Your task to perform on an android device: Open ESPN.com Image 0: 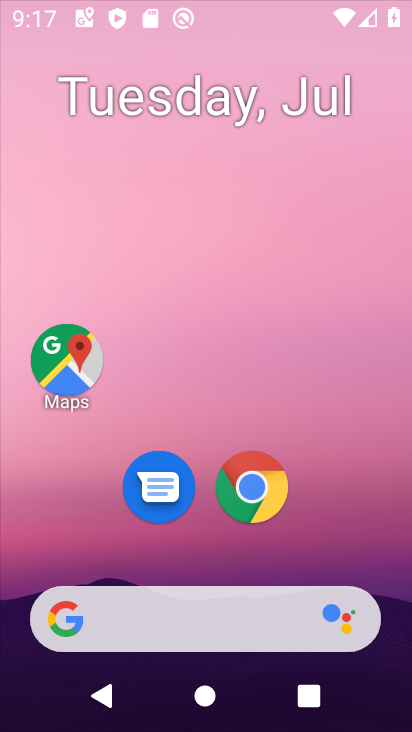
Step 0: drag from (205, 528) to (284, 81)
Your task to perform on an android device: Open ESPN.com Image 1: 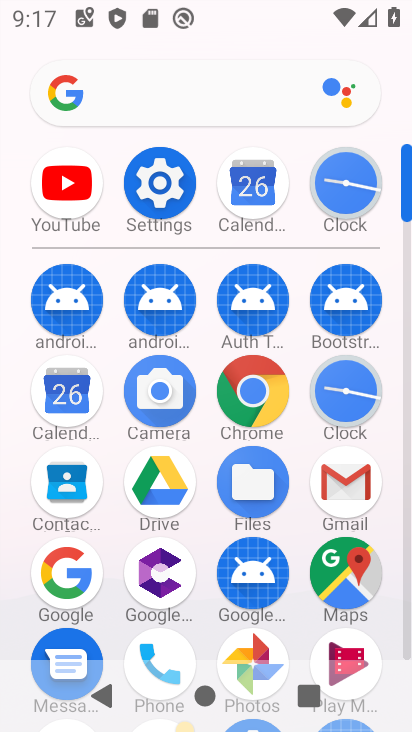
Step 1: click (252, 394)
Your task to perform on an android device: Open ESPN.com Image 2: 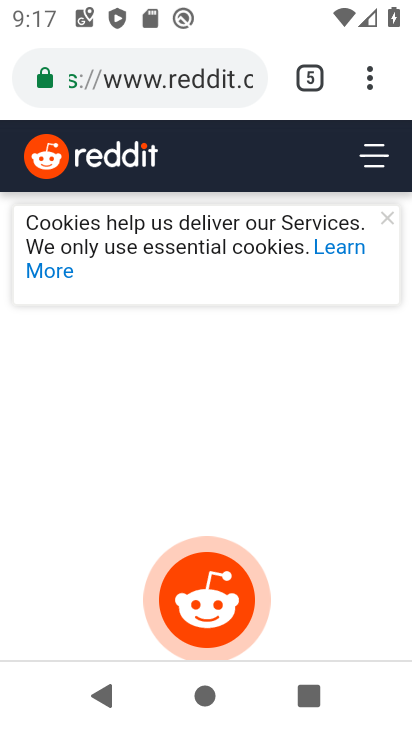
Step 2: click (311, 78)
Your task to perform on an android device: Open ESPN.com Image 3: 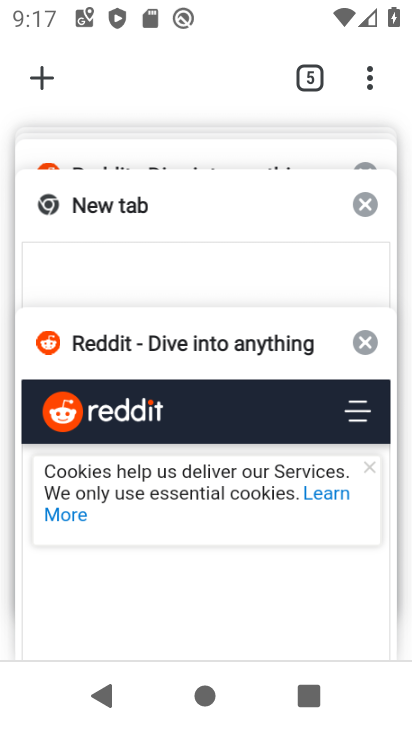
Step 3: drag from (92, 165) to (92, 644)
Your task to perform on an android device: Open ESPN.com Image 4: 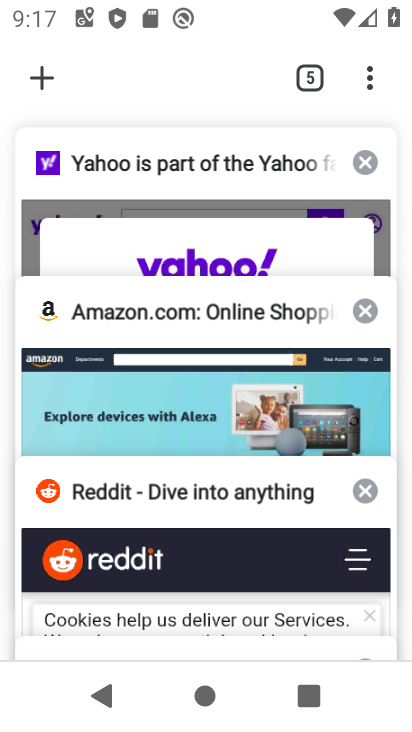
Step 4: click (43, 68)
Your task to perform on an android device: Open ESPN.com Image 5: 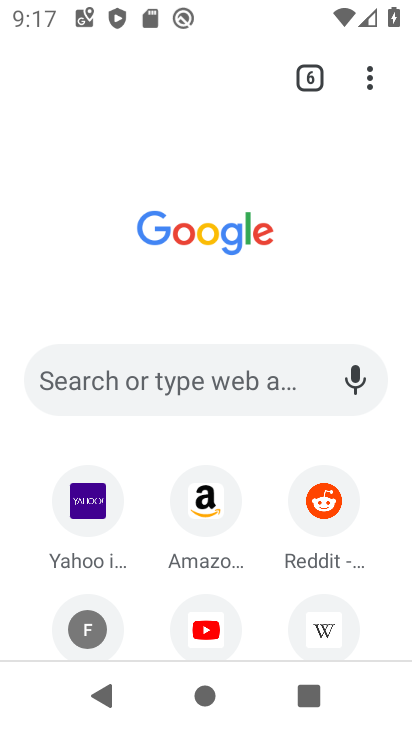
Step 5: click (155, 364)
Your task to perform on an android device: Open ESPN.com Image 6: 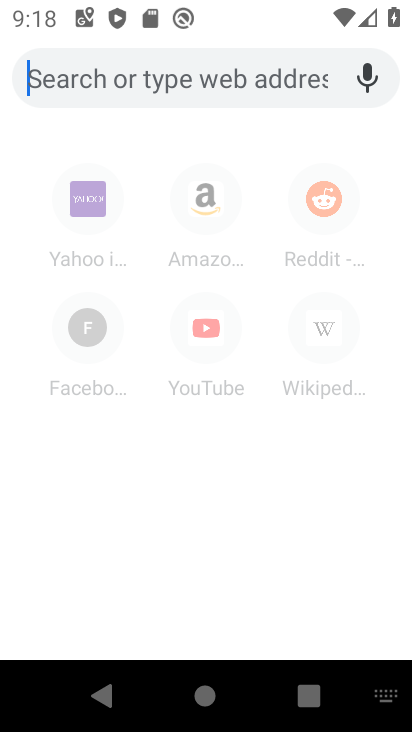
Step 6: type "espn.com"
Your task to perform on an android device: Open ESPN.com Image 7: 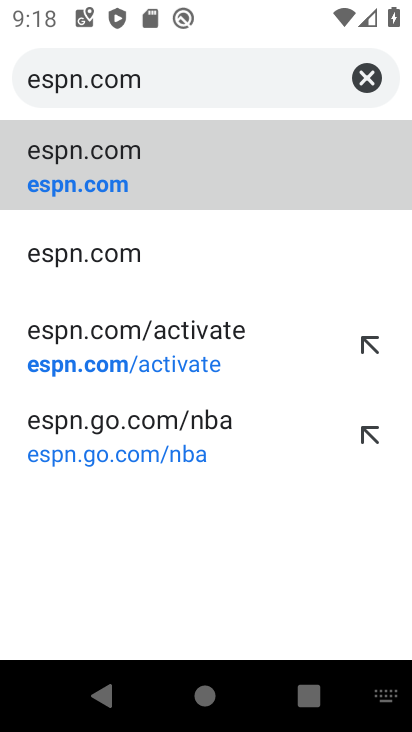
Step 7: click (331, 184)
Your task to perform on an android device: Open ESPN.com Image 8: 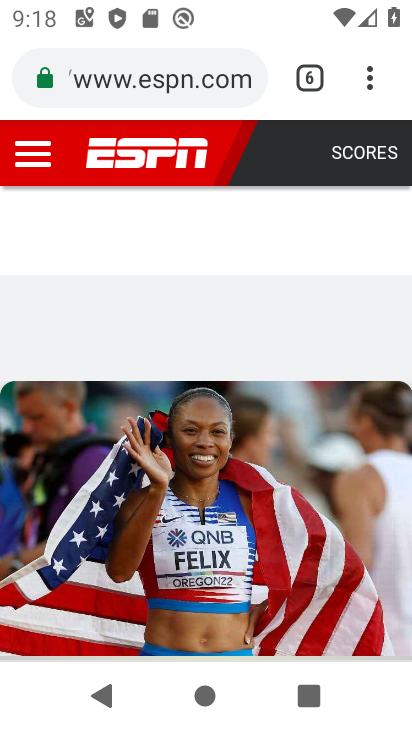
Step 8: task complete